Your task to perform on an android device: open chrome privacy settings Image 0: 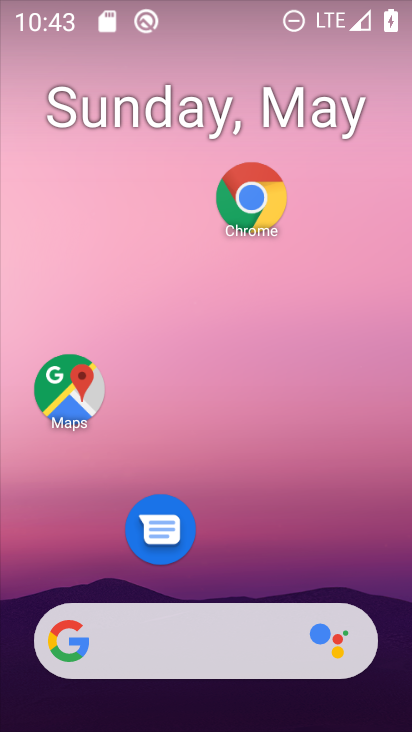
Step 0: click (256, 195)
Your task to perform on an android device: open chrome privacy settings Image 1: 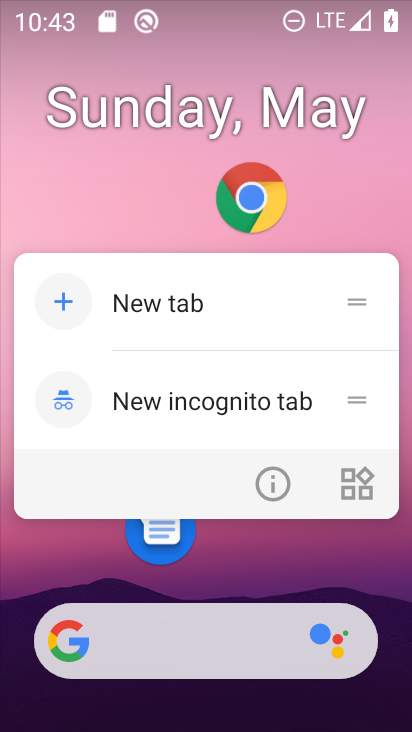
Step 1: click (248, 200)
Your task to perform on an android device: open chrome privacy settings Image 2: 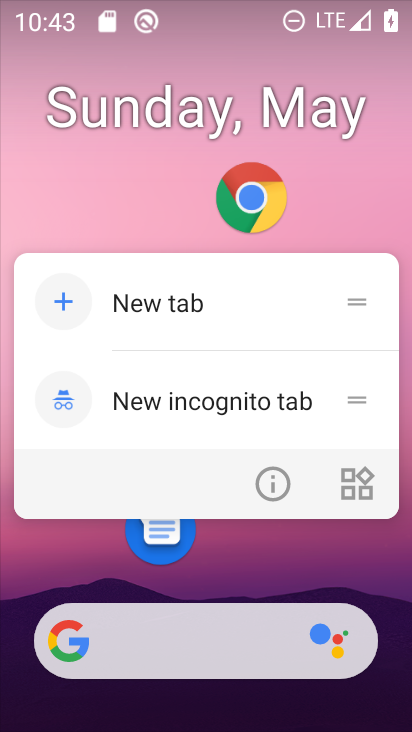
Step 2: click (248, 200)
Your task to perform on an android device: open chrome privacy settings Image 3: 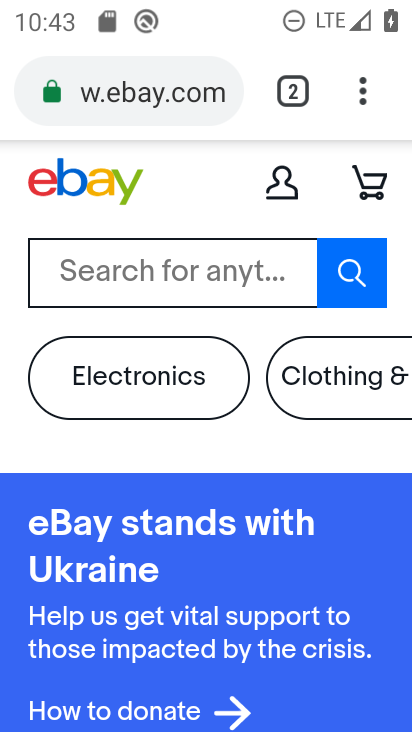
Step 3: click (351, 93)
Your task to perform on an android device: open chrome privacy settings Image 4: 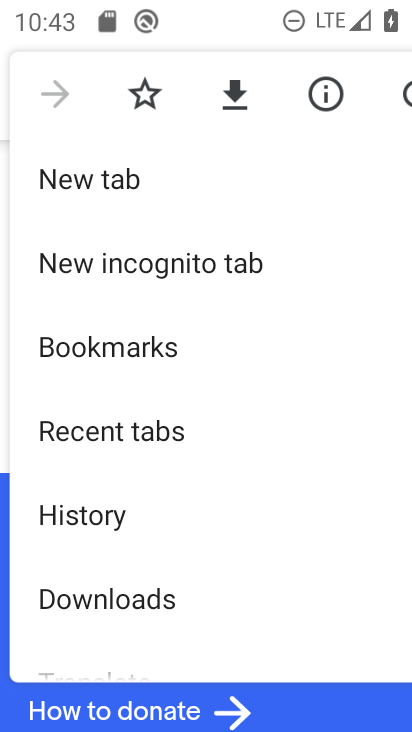
Step 4: drag from (133, 611) to (187, 372)
Your task to perform on an android device: open chrome privacy settings Image 5: 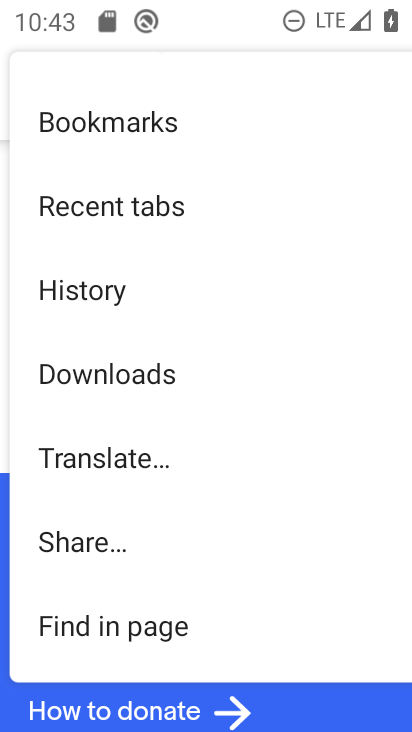
Step 5: drag from (152, 608) to (162, 394)
Your task to perform on an android device: open chrome privacy settings Image 6: 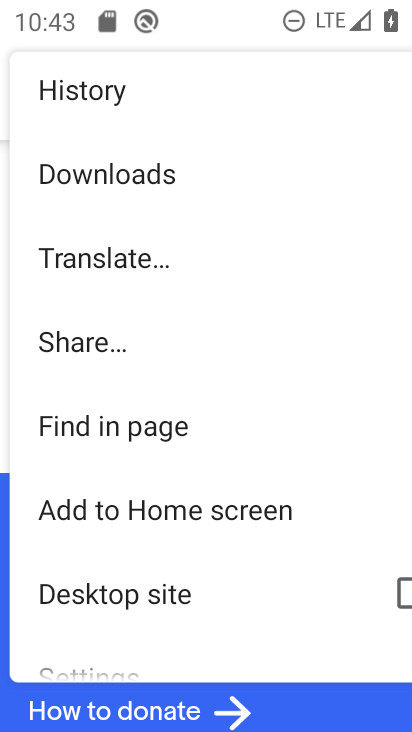
Step 6: drag from (132, 576) to (192, 360)
Your task to perform on an android device: open chrome privacy settings Image 7: 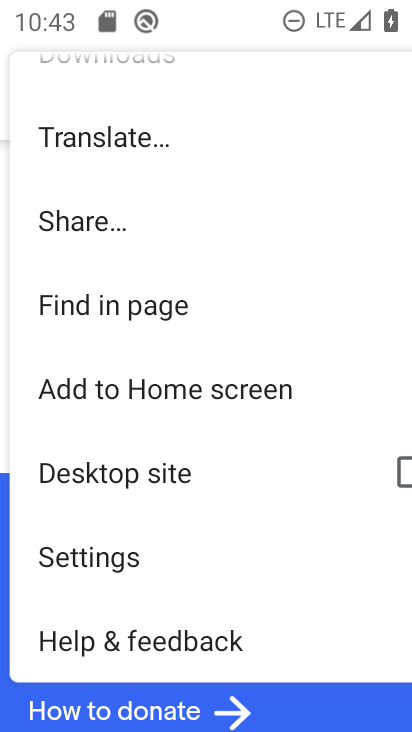
Step 7: click (86, 548)
Your task to perform on an android device: open chrome privacy settings Image 8: 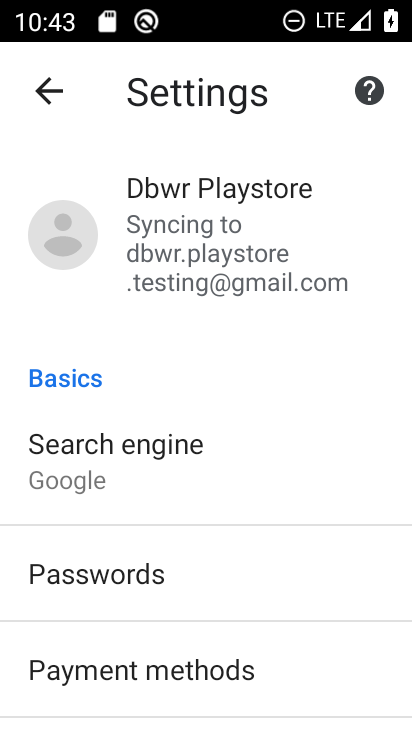
Step 8: drag from (250, 684) to (274, 428)
Your task to perform on an android device: open chrome privacy settings Image 9: 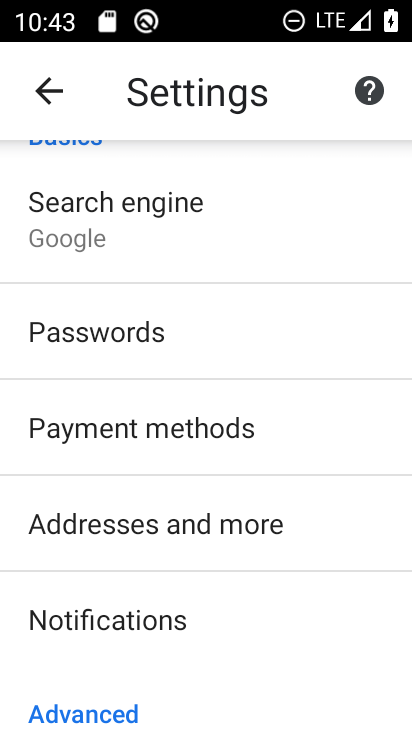
Step 9: drag from (197, 656) to (263, 375)
Your task to perform on an android device: open chrome privacy settings Image 10: 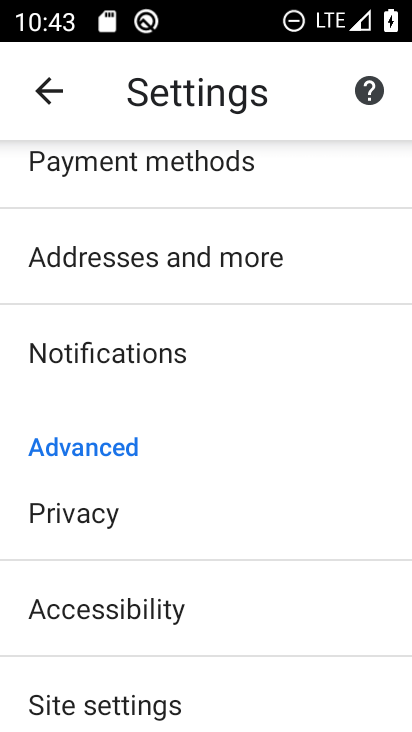
Step 10: drag from (145, 666) to (174, 431)
Your task to perform on an android device: open chrome privacy settings Image 11: 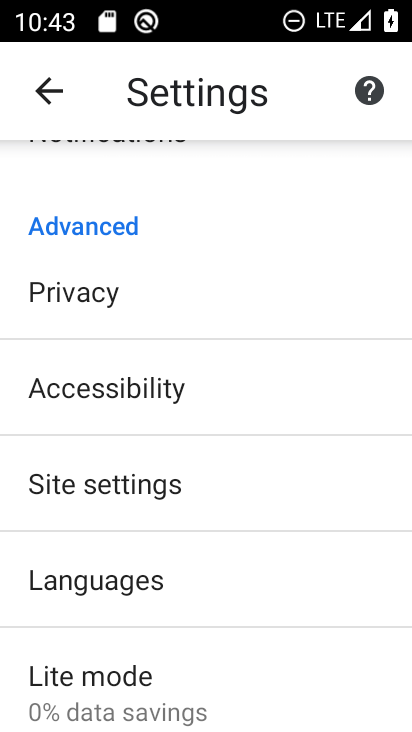
Step 11: click (166, 282)
Your task to perform on an android device: open chrome privacy settings Image 12: 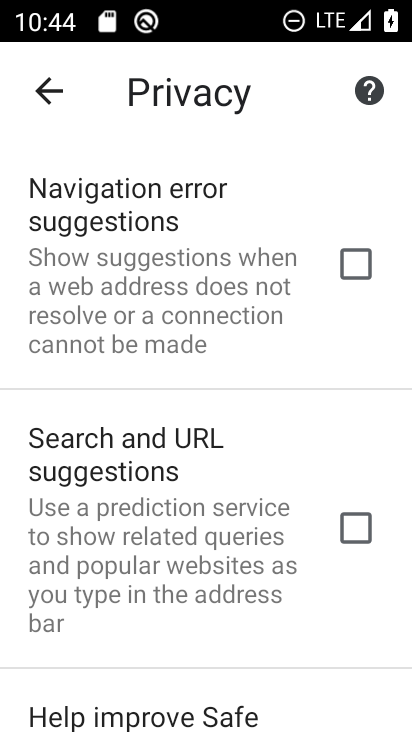
Step 12: task complete